Your task to perform on an android device: change notifications settings Image 0: 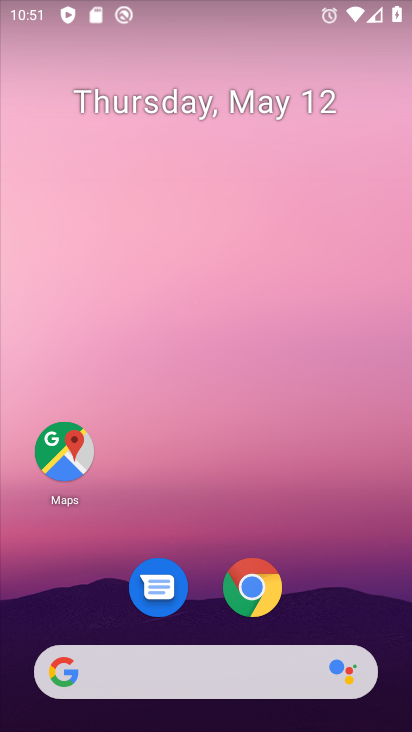
Step 0: drag from (350, 571) to (332, 25)
Your task to perform on an android device: change notifications settings Image 1: 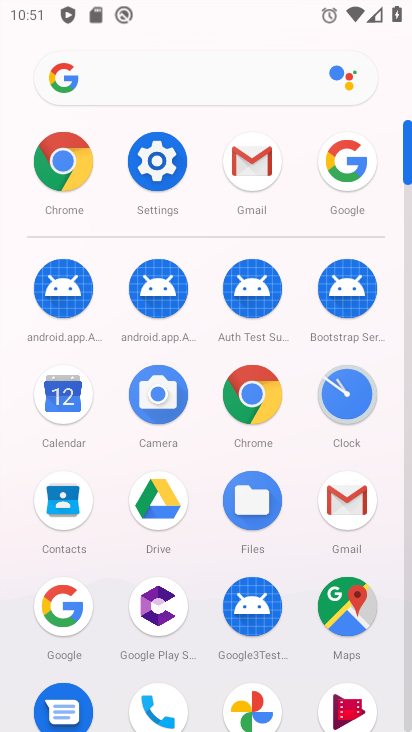
Step 1: click (140, 170)
Your task to perform on an android device: change notifications settings Image 2: 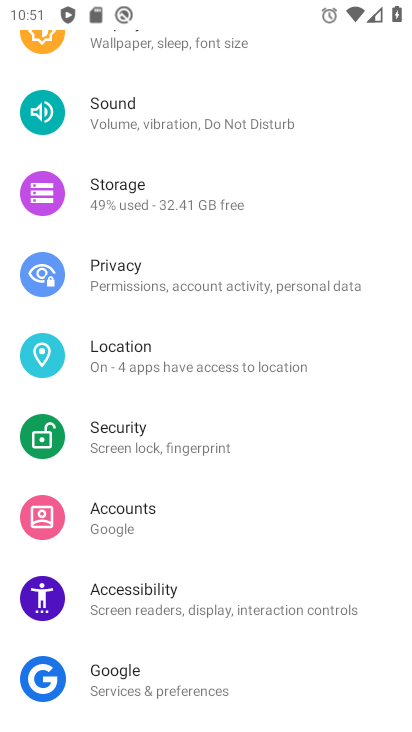
Step 2: drag from (212, 283) to (145, 592)
Your task to perform on an android device: change notifications settings Image 3: 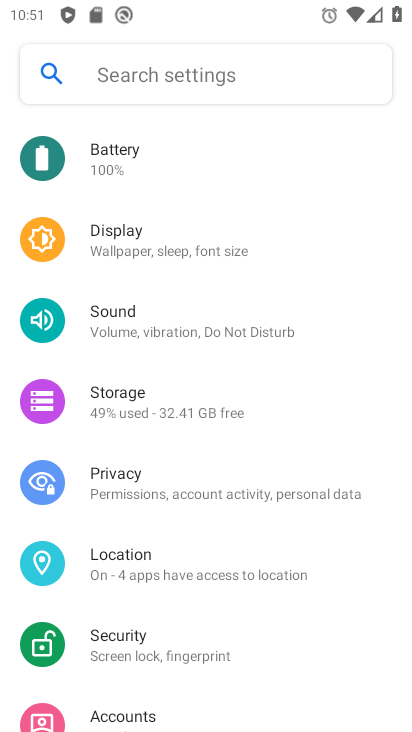
Step 3: drag from (222, 256) to (149, 590)
Your task to perform on an android device: change notifications settings Image 4: 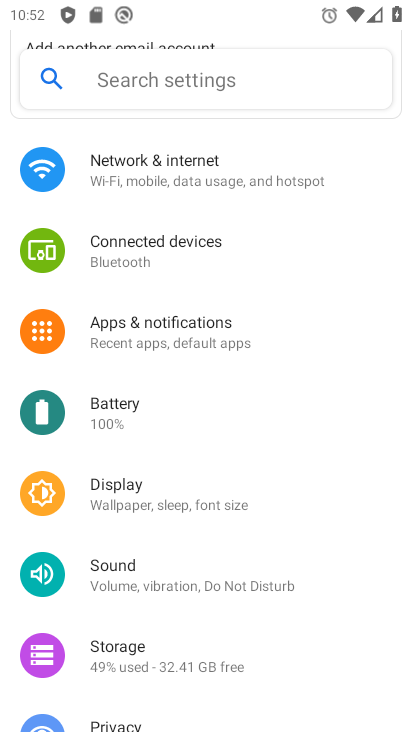
Step 4: click (196, 327)
Your task to perform on an android device: change notifications settings Image 5: 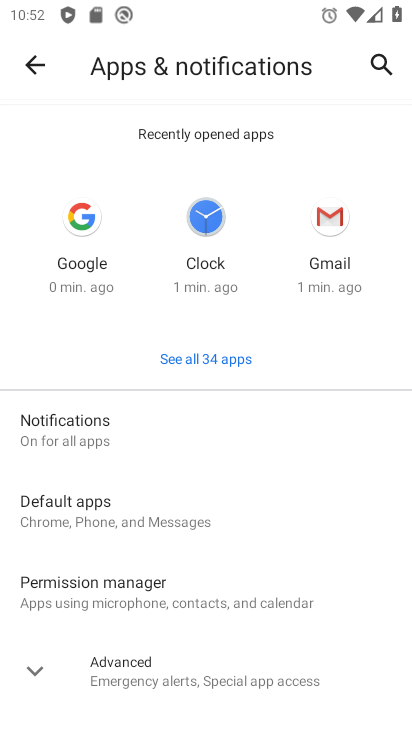
Step 5: click (67, 449)
Your task to perform on an android device: change notifications settings Image 6: 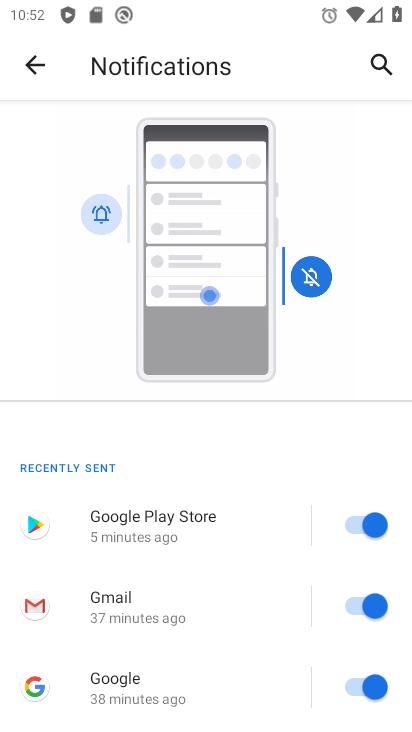
Step 6: drag from (139, 630) to (208, 262)
Your task to perform on an android device: change notifications settings Image 7: 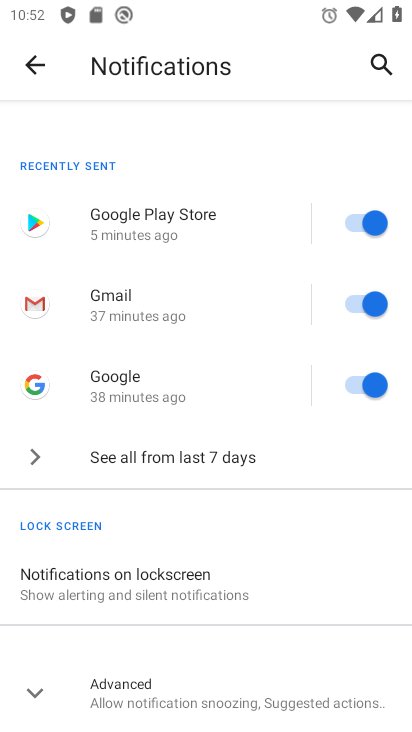
Step 7: click (358, 228)
Your task to perform on an android device: change notifications settings Image 8: 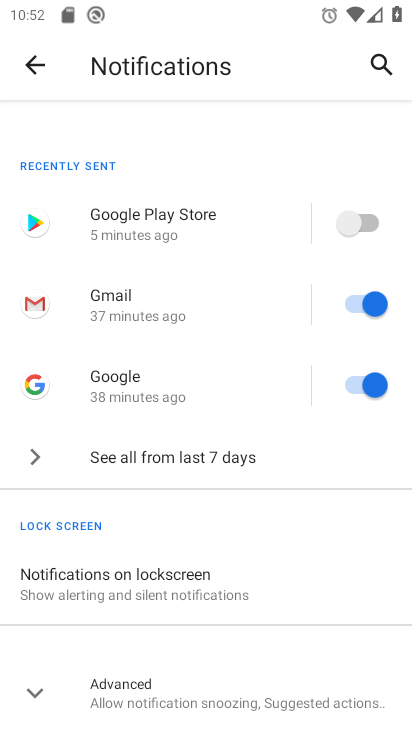
Step 8: task complete